Your task to perform on an android device: change notifications settings Image 0: 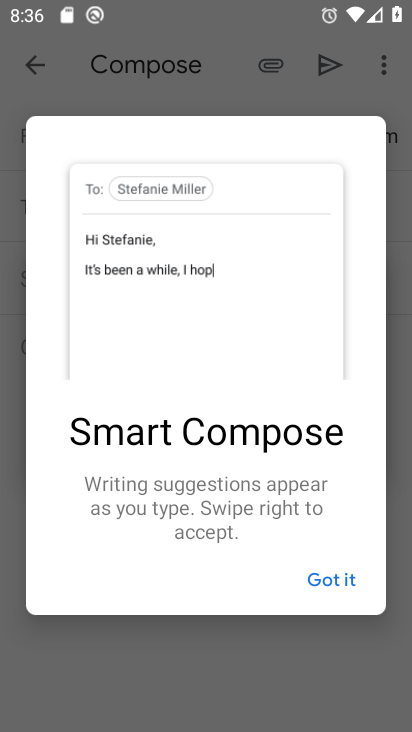
Step 0: press home button
Your task to perform on an android device: change notifications settings Image 1: 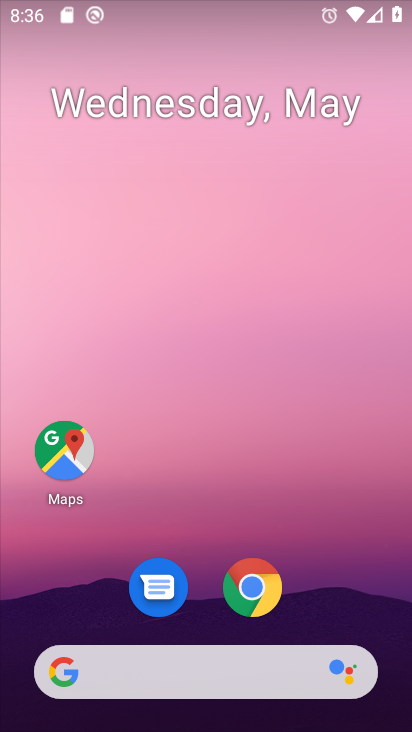
Step 1: drag from (213, 621) to (244, 314)
Your task to perform on an android device: change notifications settings Image 2: 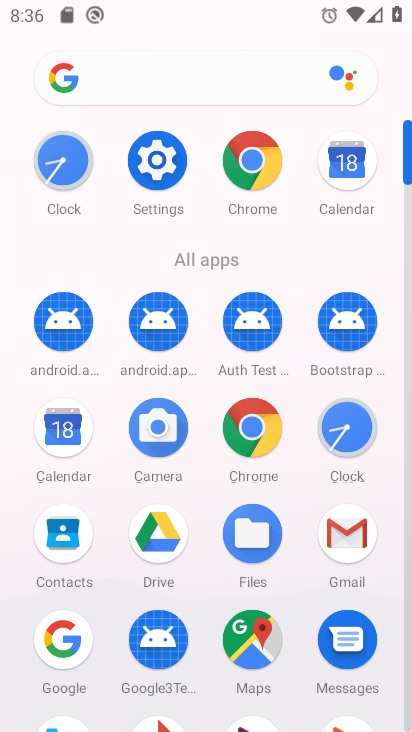
Step 2: click (152, 181)
Your task to perform on an android device: change notifications settings Image 3: 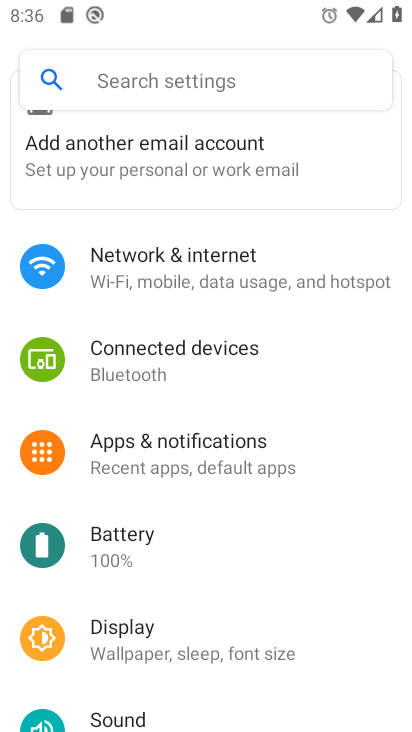
Step 3: click (200, 467)
Your task to perform on an android device: change notifications settings Image 4: 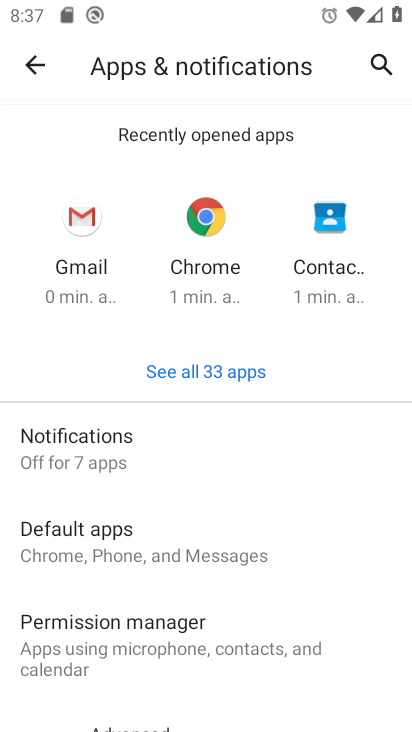
Step 4: click (95, 459)
Your task to perform on an android device: change notifications settings Image 5: 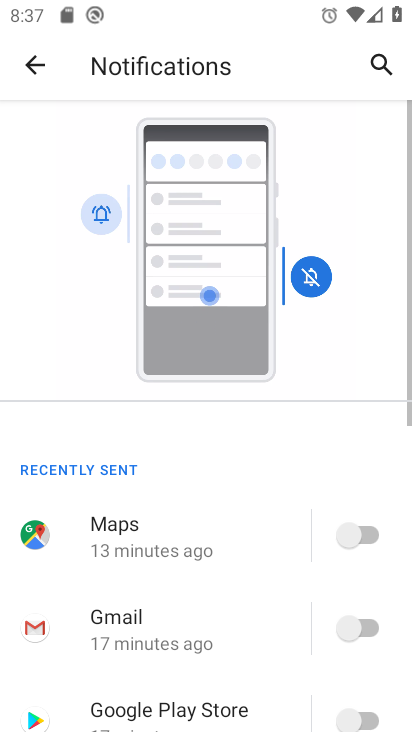
Step 5: drag from (202, 485) to (253, 62)
Your task to perform on an android device: change notifications settings Image 6: 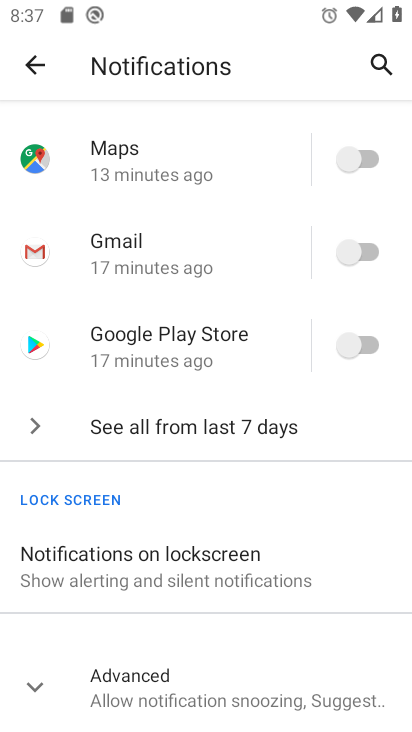
Step 6: click (373, 154)
Your task to perform on an android device: change notifications settings Image 7: 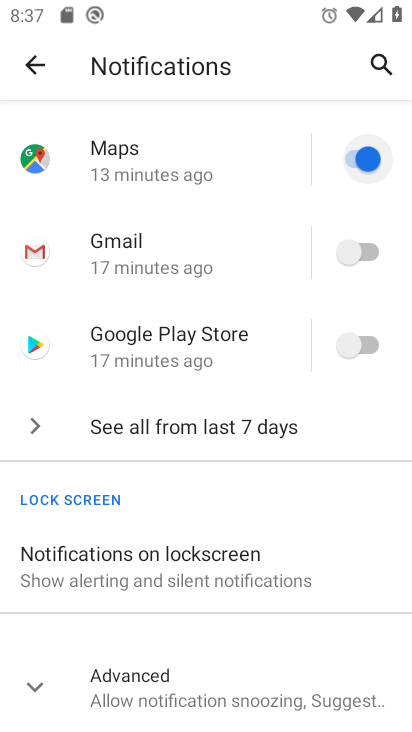
Step 7: click (371, 255)
Your task to perform on an android device: change notifications settings Image 8: 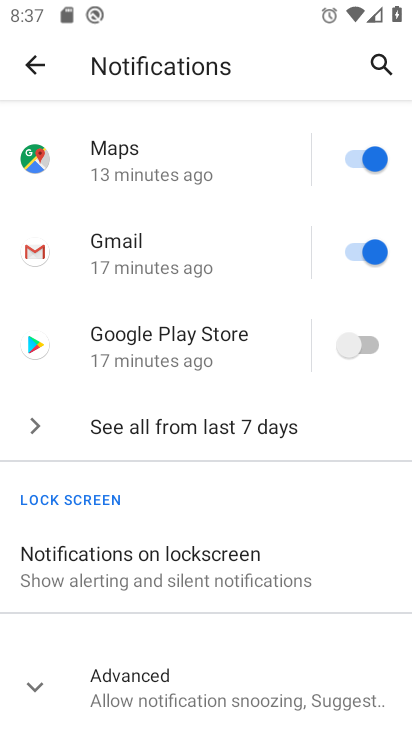
Step 8: click (376, 334)
Your task to perform on an android device: change notifications settings Image 9: 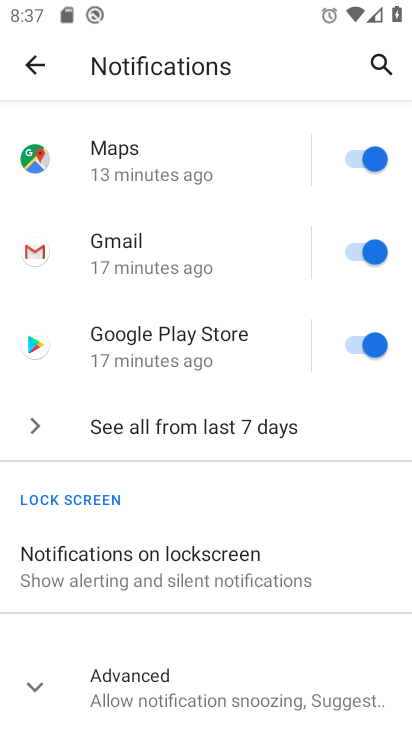
Step 9: click (234, 433)
Your task to perform on an android device: change notifications settings Image 10: 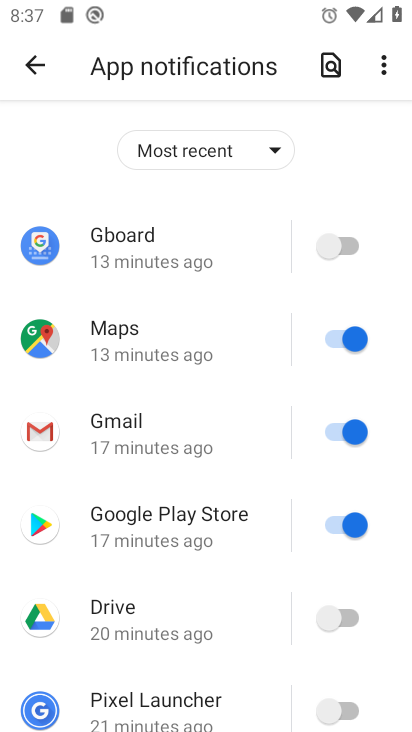
Step 10: click (359, 231)
Your task to perform on an android device: change notifications settings Image 11: 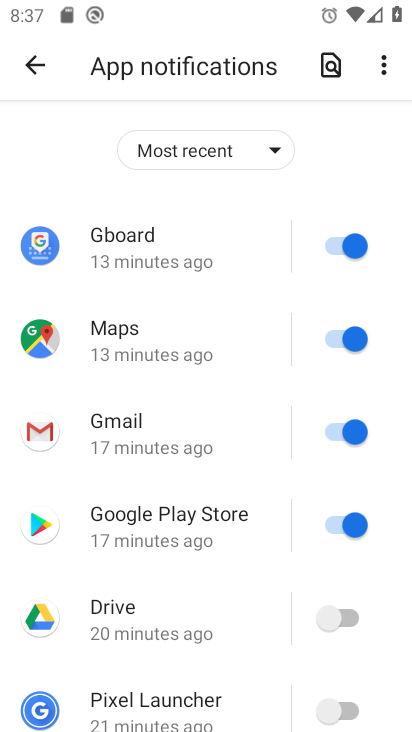
Step 11: drag from (233, 381) to (276, 40)
Your task to perform on an android device: change notifications settings Image 12: 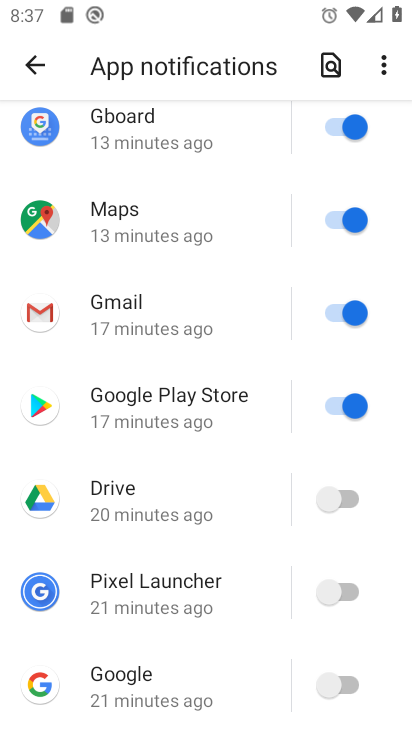
Step 12: click (358, 508)
Your task to perform on an android device: change notifications settings Image 13: 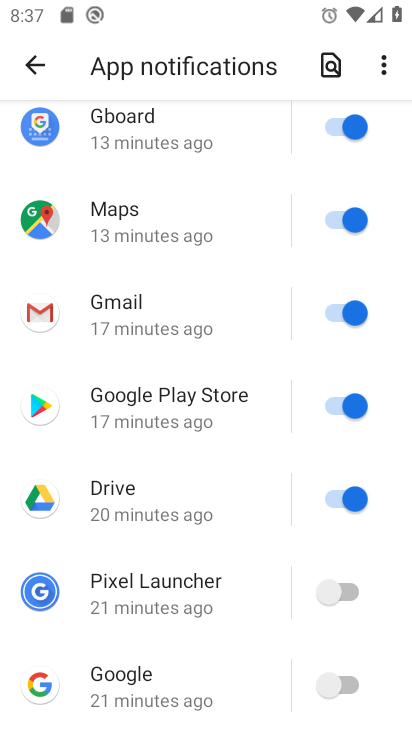
Step 13: click (347, 606)
Your task to perform on an android device: change notifications settings Image 14: 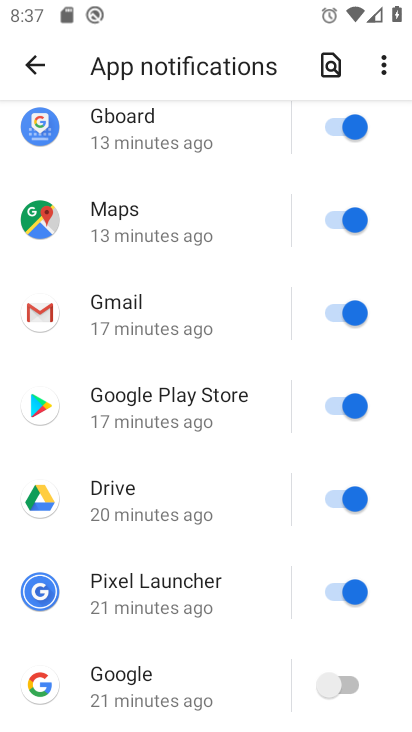
Step 14: click (354, 694)
Your task to perform on an android device: change notifications settings Image 15: 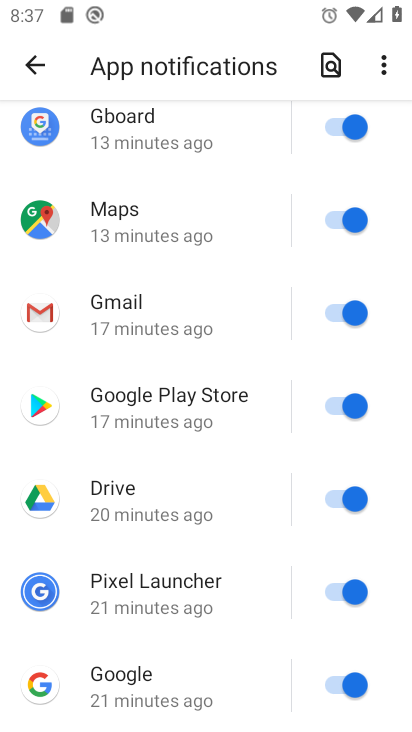
Step 15: task complete